Your task to perform on an android device: What's the news in Myanmar? Image 0: 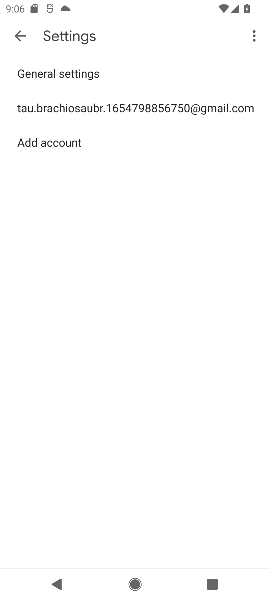
Step 0: press home button
Your task to perform on an android device: What's the news in Myanmar? Image 1: 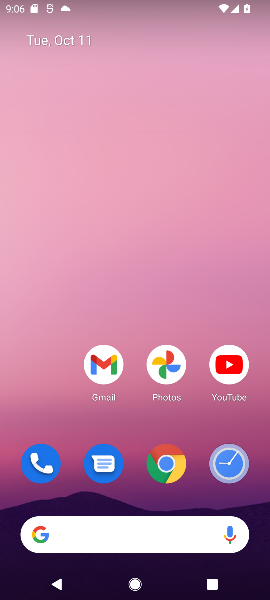
Step 1: drag from (145, 455) to (164, 147)
Your task to perform on an android device: What's the news in Myanmar? Image 2: 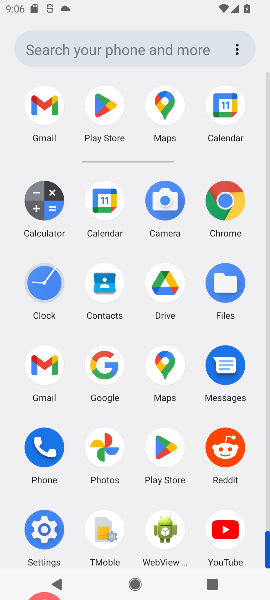
Step 2: click (99, 355)
Your task to perform on an android device: What's the news in Myanmar? Image 3: 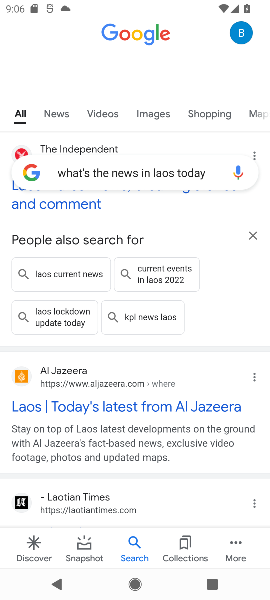
Step 3: click (113, 166)
Your task to perform on an android device: What's the news in Myanmar? Image 4: 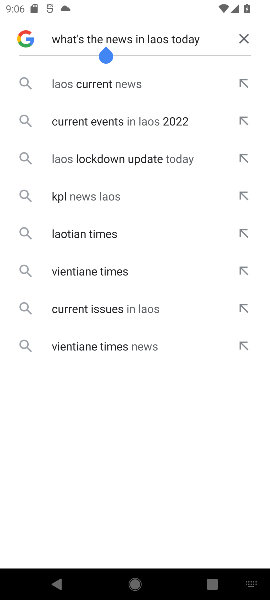
Step 4: click (246, 33)
Your task to perform on an android device: What's the news in Myanmar? Image 5: 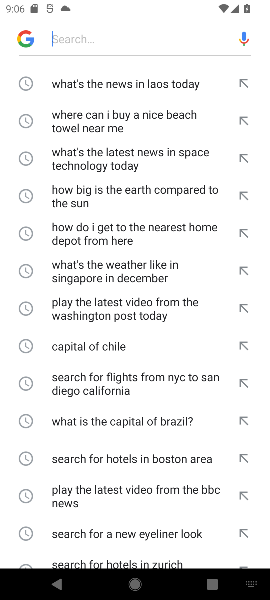
Step 5: click (106, 45)
Your task to perform on an android device: What's the news in Myanmar? Image 6: 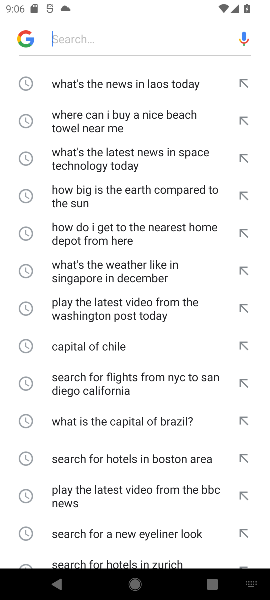
Step 6: type "What's the news in Myanmar? "
Your task to perform on an android device: What's the news in Myanmar? Image 7: 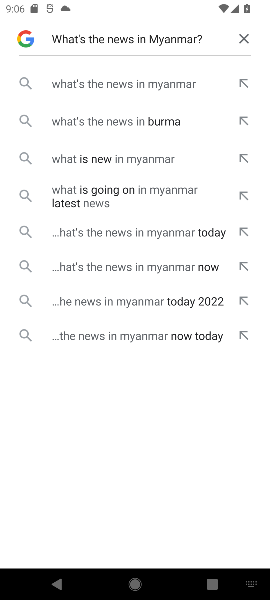
Step 7: click (175, 84)
Your task to perform on an android device: What's the news in Myanmar? Image 8: 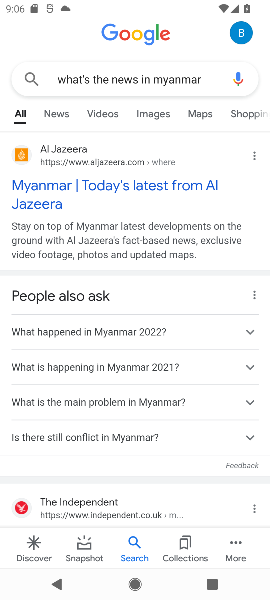
Step 8: click (147, 185)
Your task to perform on an android device: What's the news in Myanmar? Image 9: 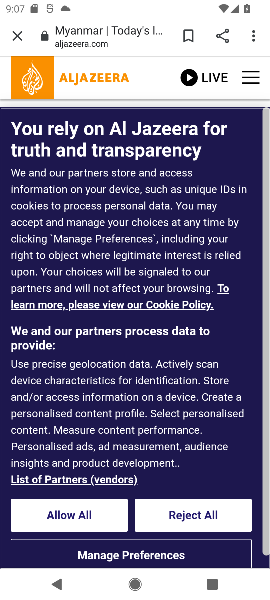
Step 9: click (45, 510)
Your task to perform on an android device: What's the news in Myanmar? Image 10: 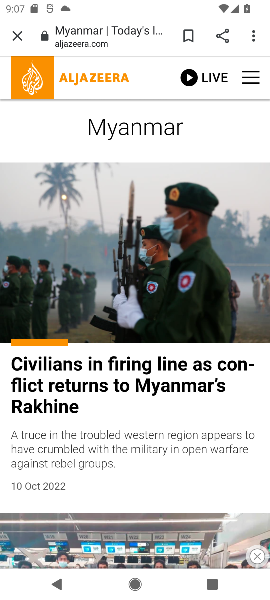
Step 10: drag from (142, 493) to (180, 226)
Your task to perform on an android device: What's the news in Myanmar? Image 11: 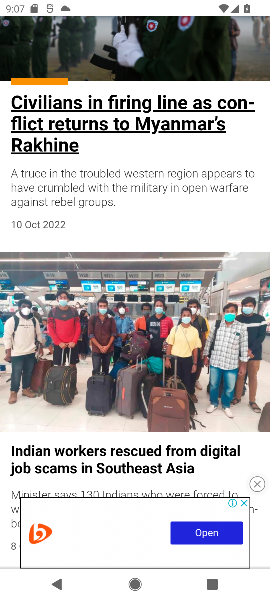
Step 11: click (254, 484)
Your task to perform on an android device: What's the news in Myanmar? Image 12: 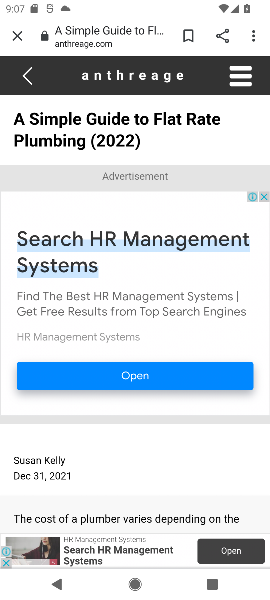
Step 12: task complete